Your task to perform on an android device: turn off improve location accuracy Image 0: 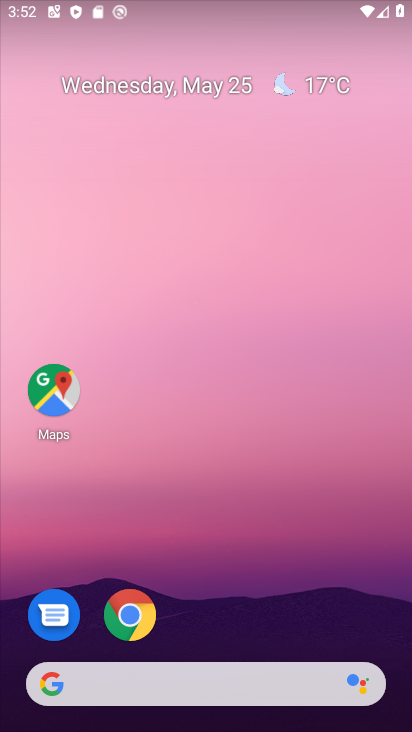
Step 0: drag from (308, 652) to (329, 49)
Your task to perform on an android device: turn off improve location accuracy Image 1: 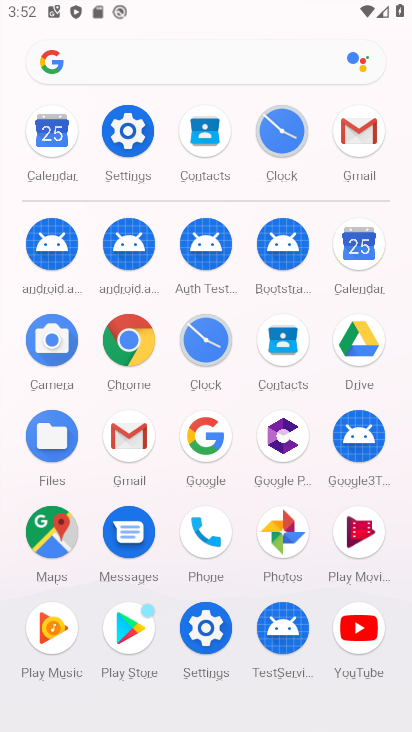
Step 1: click (197, 622)
Your task to perform on an android device: turn off improve location accuracy Image 2: 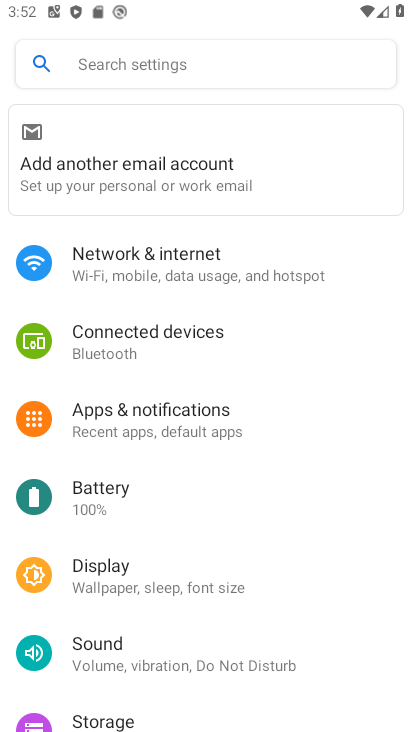
Step 2: drag from (232, 671) to (272, 269)
Your task to perform on an android device: turn off improve location accuracy Image 3: 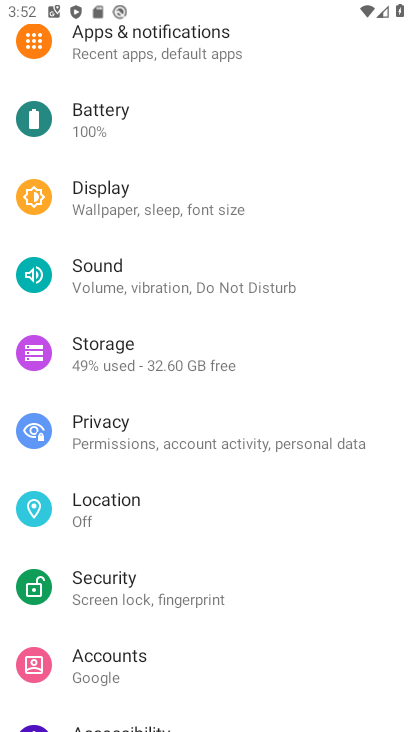
Step 3: click (119, 535)
Your task to perform on an android device: turn off improve location accuracy Image 4: 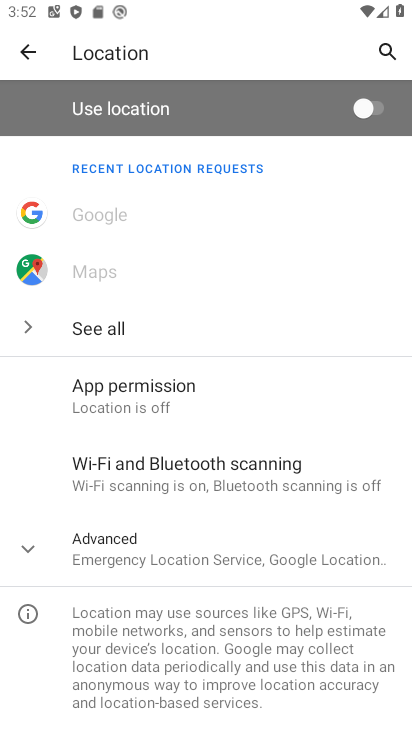
Step 4: click (169, 561)
Your task to perform on an android device: turn off improve location accuracy Image 5: 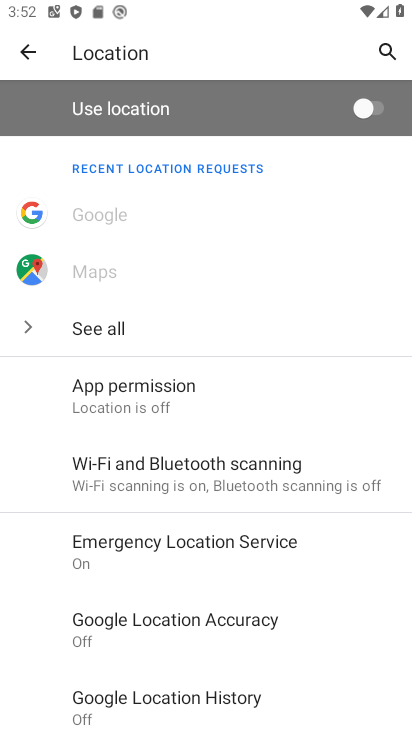
Step 5: click (218, 625)
Your task to perform on an android device: turn off improve location accuracy Image 6: 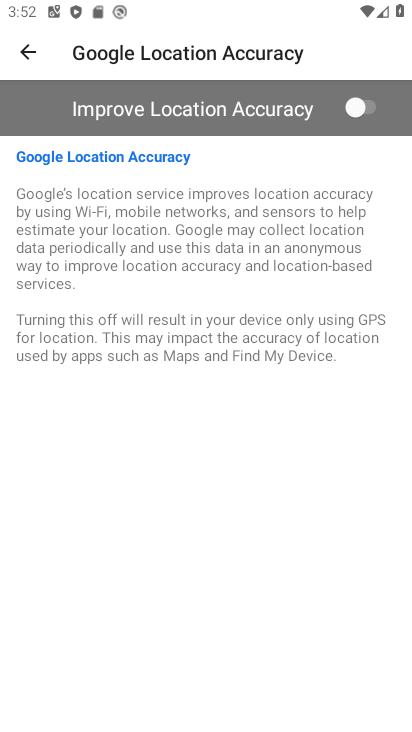
Step 6: task complete